Your task to perform on an android device: Open my contact list Image 0: 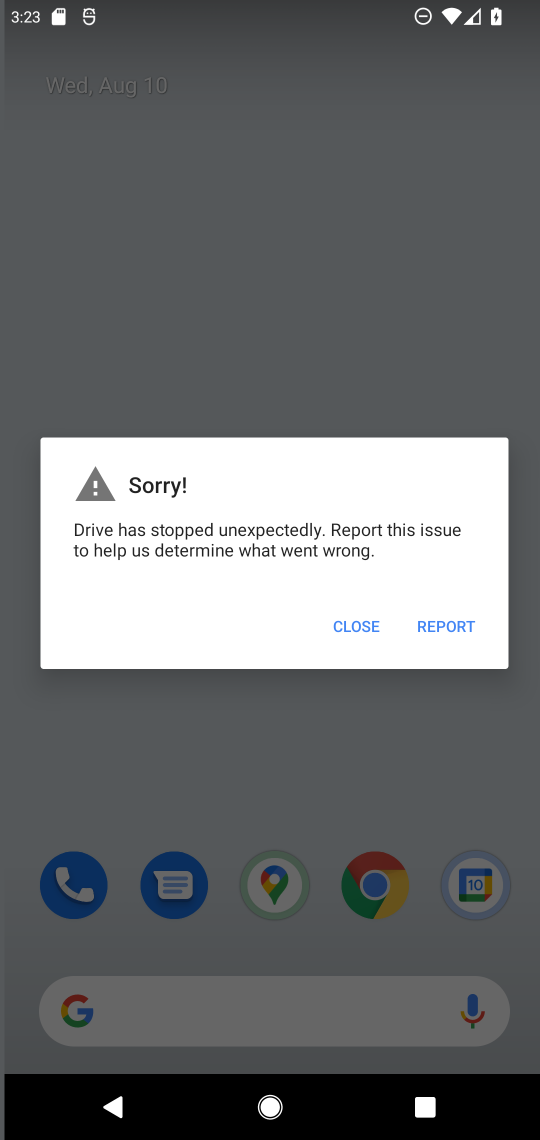
Step 0: press home button
Your task to perform on an android device: Open my contact list Image 1: 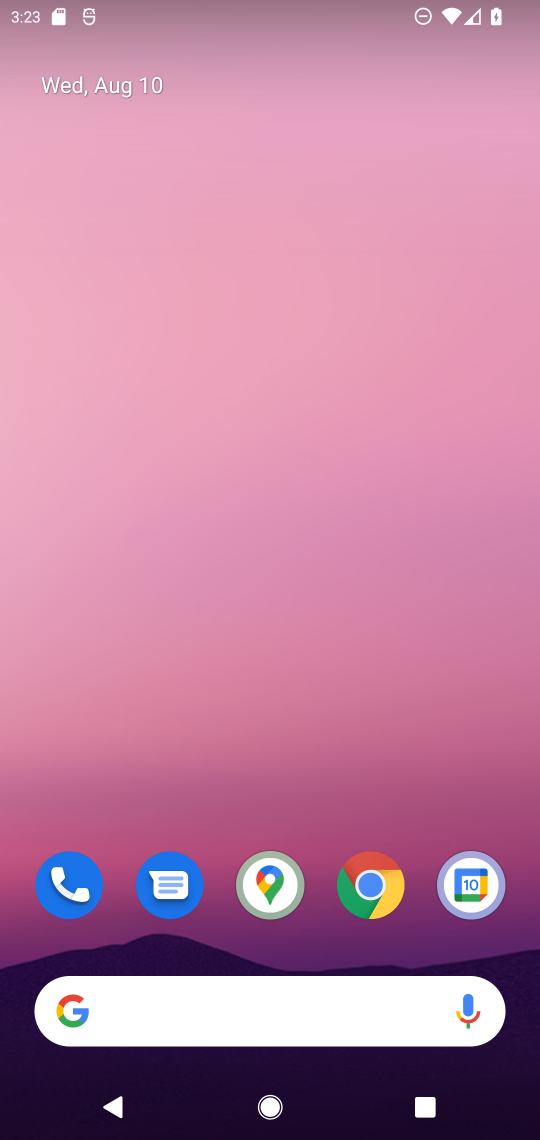
Step 1: drag from (322, 944) to (234, 127)
Your task to perform on an android device: Open my contact list Image 2: 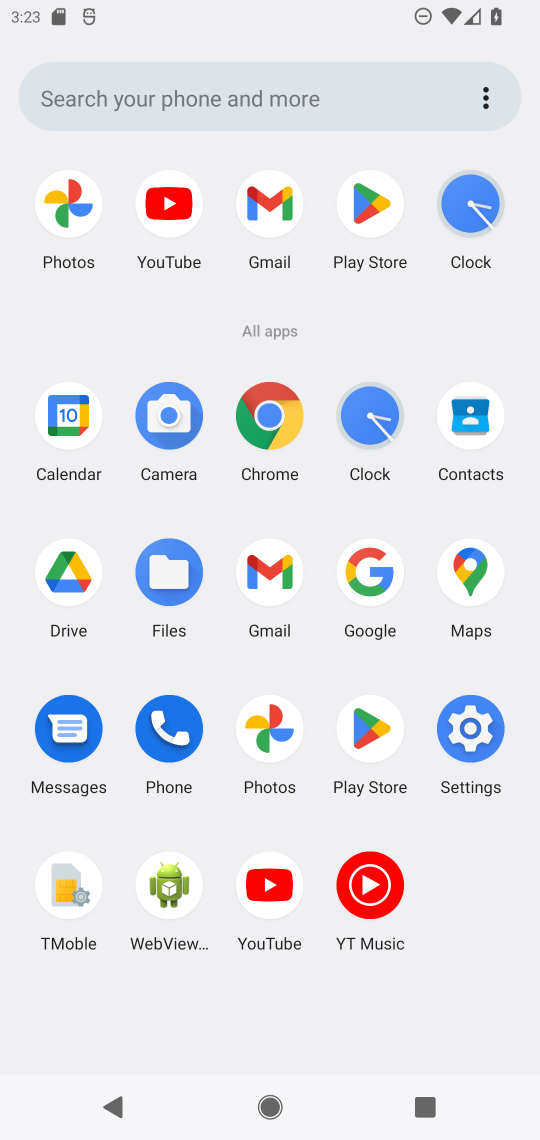
Step 2: click (465, 420)
Your task to perform on an android device: Open my contact list Image 3: 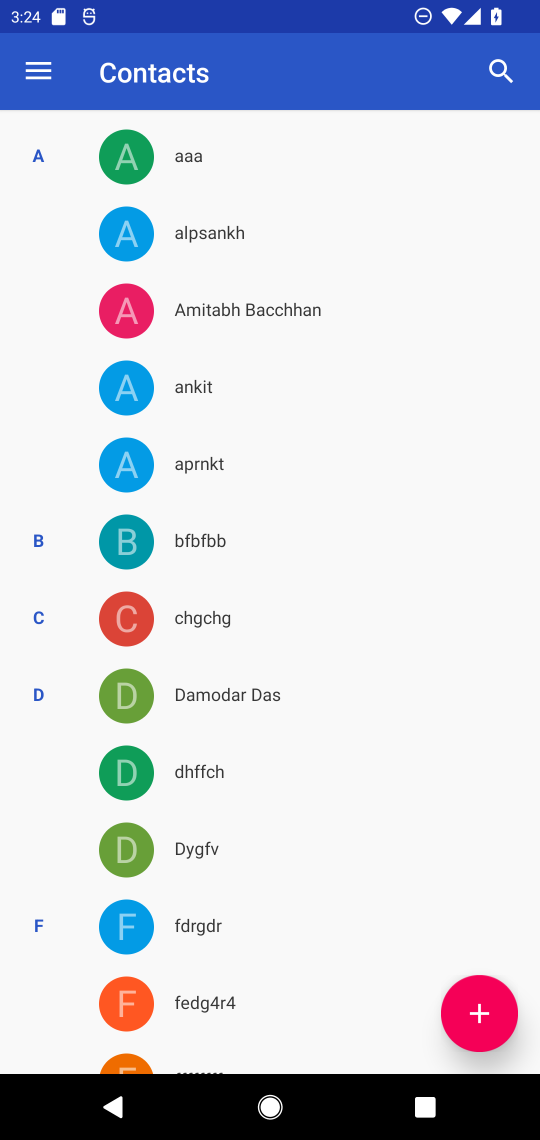
Step 3: task complete